Your task to perform on an android device: toggle javascript in the chrome app Image 0: 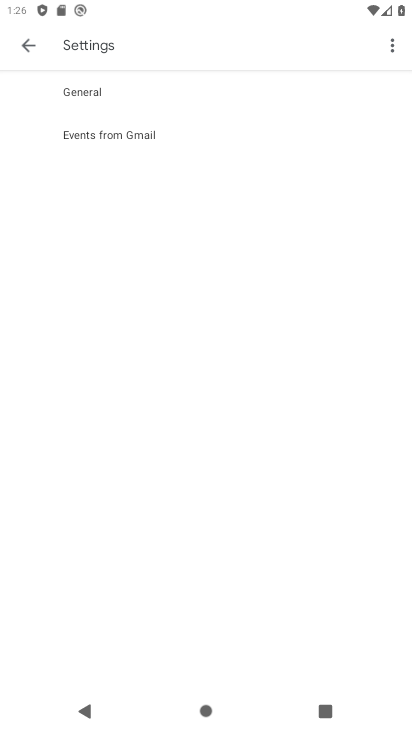
Step 0: press home button
Your task to perform on an android device: toggle javascript in the chrome app Image 1: 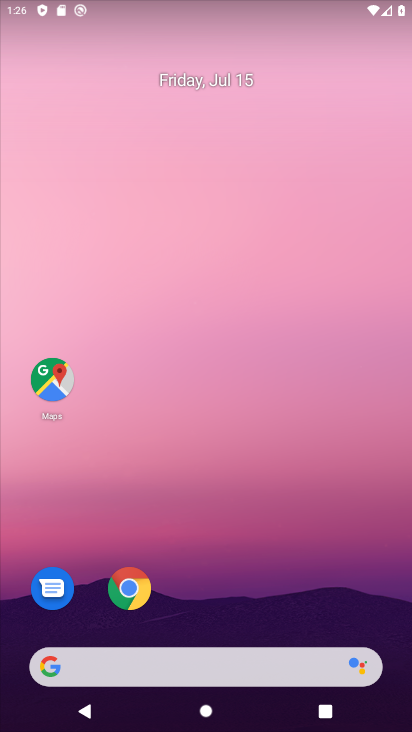
Step 1: click (130, 588)
Your task to perform on an android device: toggle javascript in the chrome app Image 2: 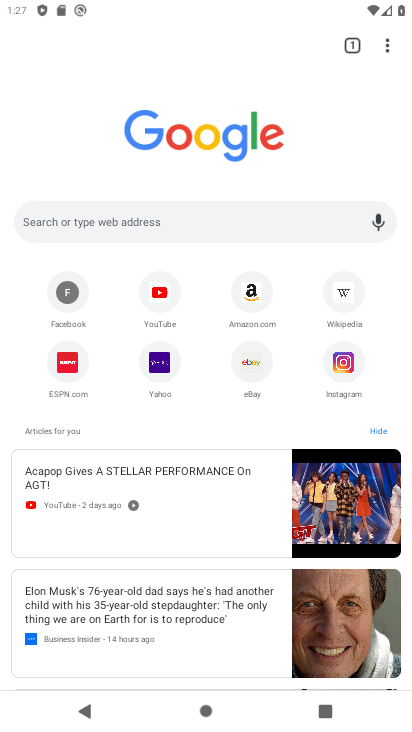
Step 2: click (386, 44)
Your task to perform on an android device: toggle javascript in the chrome app Image 3: 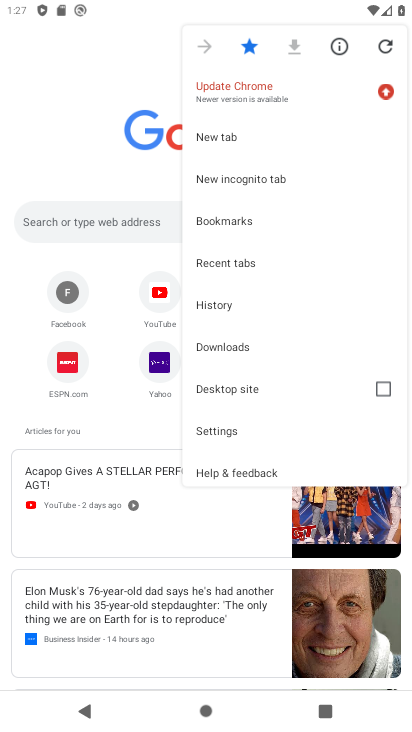
Step 3: click (226, 432)
Your task to perform on an android device: toggle javascript in the chrome app Image 4: 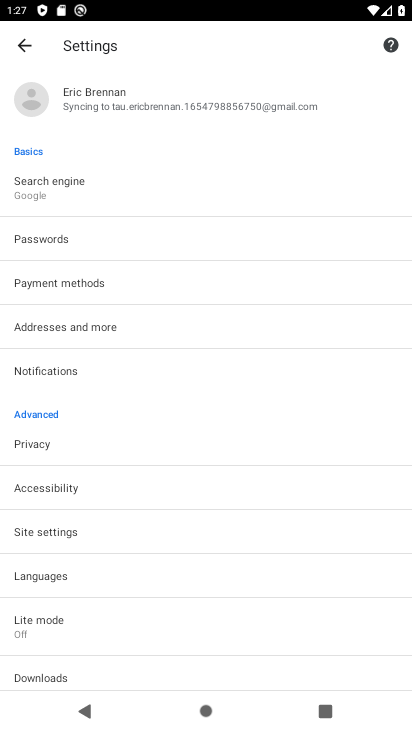
Step 4: click (58, 531)
Your task to perform on an android device: toggle javascript in the chrome app Image 5: 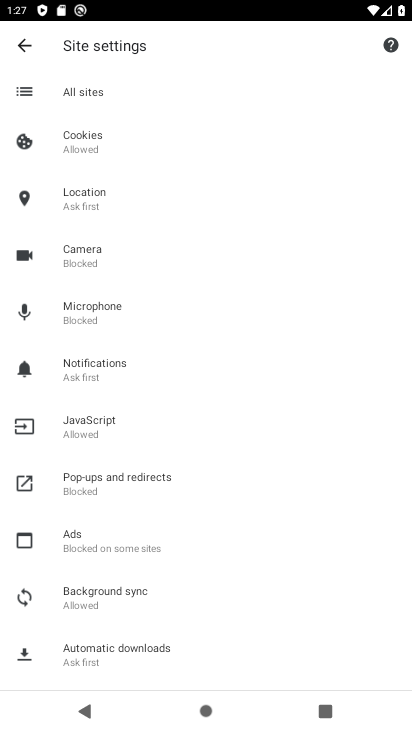
Step 5: click (94, 425)
Your task to perform on an android device: toggle javascript in the chrome app Image 6: 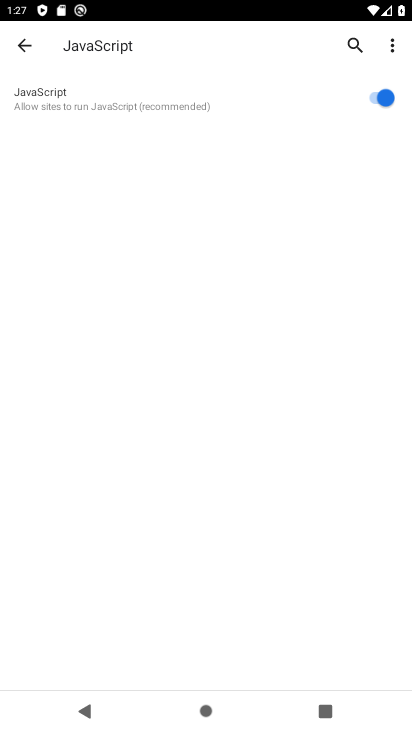
Step 6: click (382, 107)
Your task to perform on an android device: toggle javascript in the chrome app Image 7: 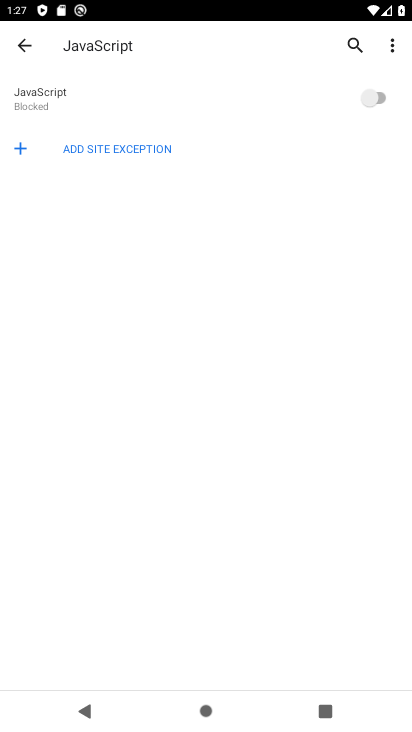
Step 7: task complete